Your task to perform on an android device: What's on my calendar tomorrow? Image 0: 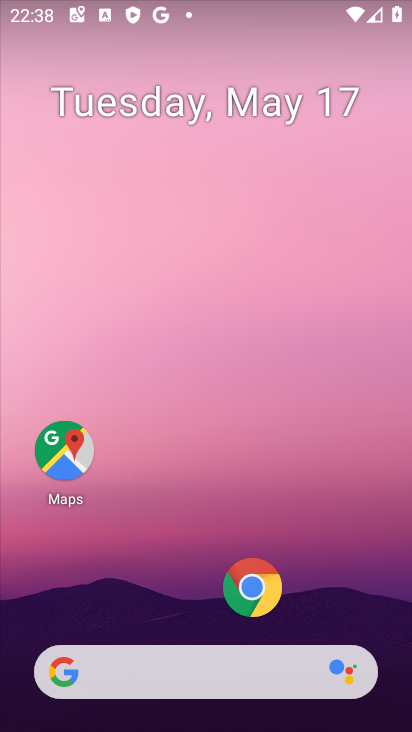
Step 0: drag from (167, 563) to (196, 110)
Your task to perform on an android device: What's on my calendar tomorrow? Image 1: 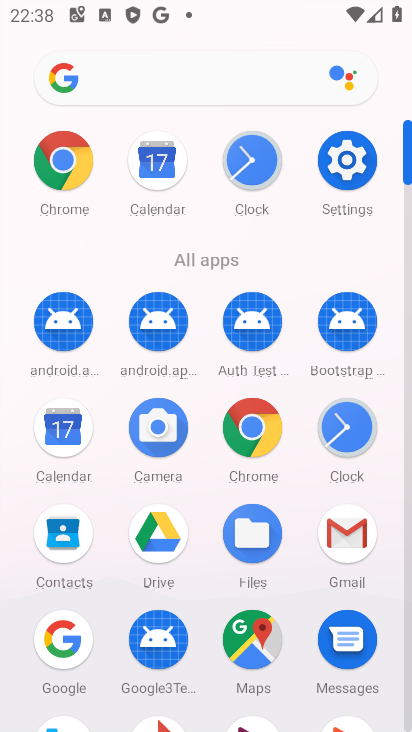
Step 1: click (56, 449)
Your task to perform on an android device: What's on my calendar tomorrow? Image 2: 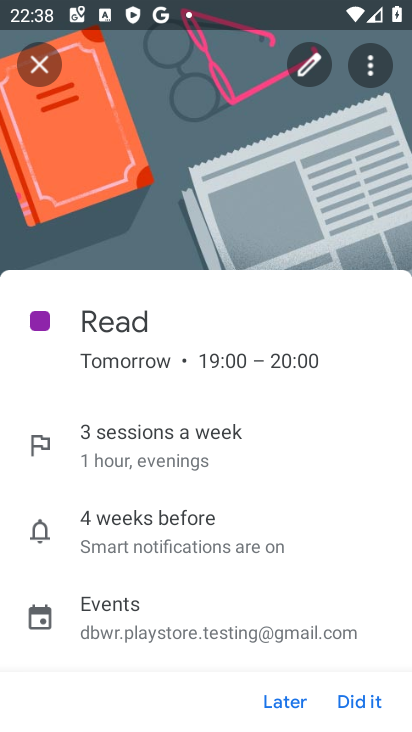
Step 2: click (299, 711)
Your task to perform on an android device: What's on my calendar tomorrow? Image 3: 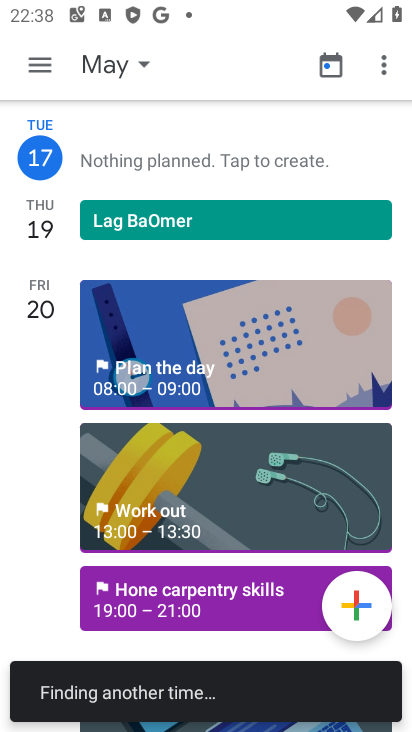
Step 3: task complete